Your task to perform on an android device: turn on bluetooth scan Image 0: 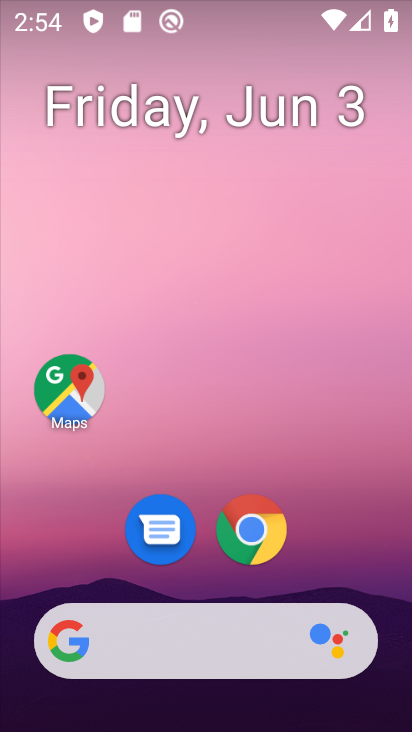
Step 0: drag from (395, 691) to (328, 172)
Your task to perform on an android device: turn on bluetooth scan Image 1: 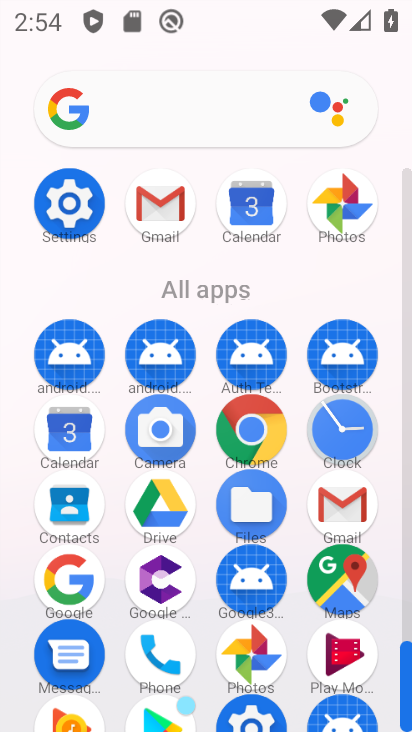
Step 1: click (75, 208)
Your task to perform on an android device: turn on bluetooth scan Image 2: 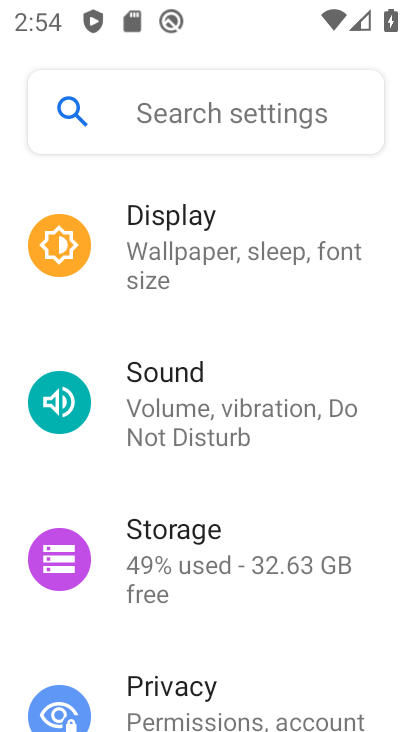
Step 2: drag from (318, 678) to (303, 198)
Your task to perform on an android device: turn on bluetooth scan Image 3: 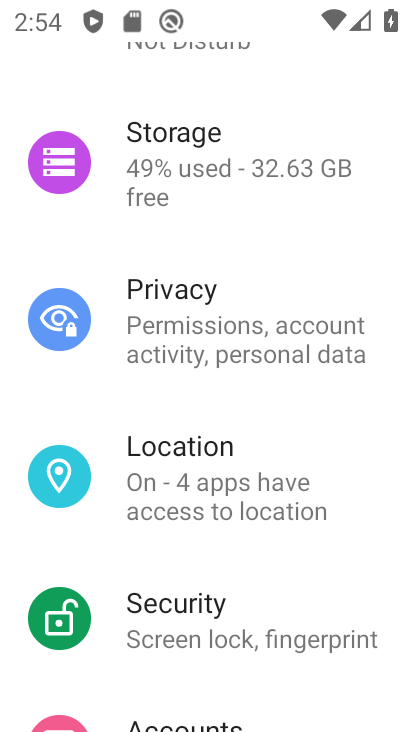
Step 3: click (217, 513)
Your task to perform on an android device: turn on bluetooth scan Image 4: 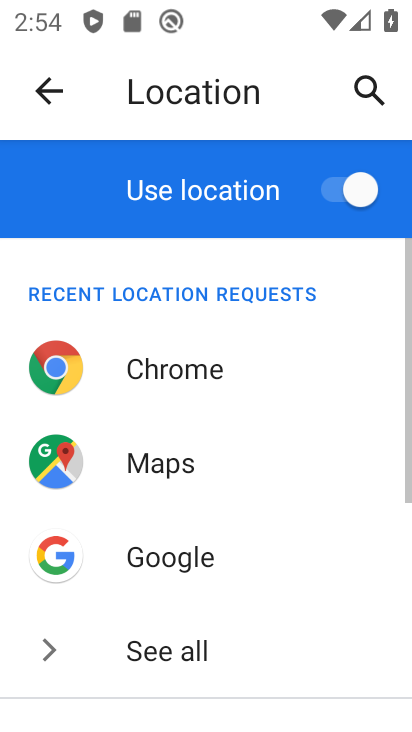
Step 4: drag from (283, 666) to (240, 222)
Your task to perform on an android device: turn on bluetooth scan Image 5: 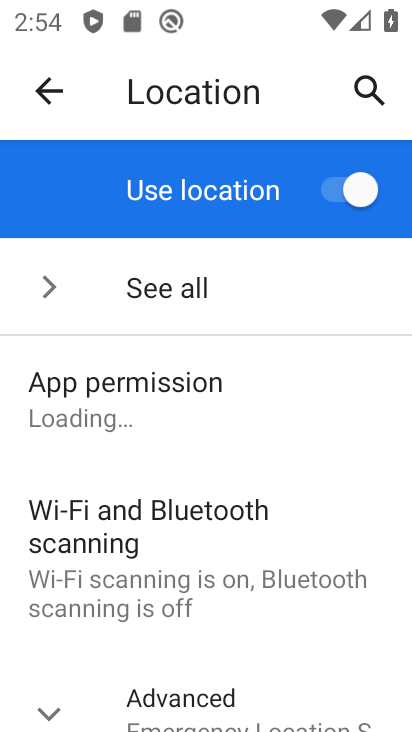
Step 5: click (163, 550)
Your task to perform on an android device: turn on bluetooth scan Image 6: 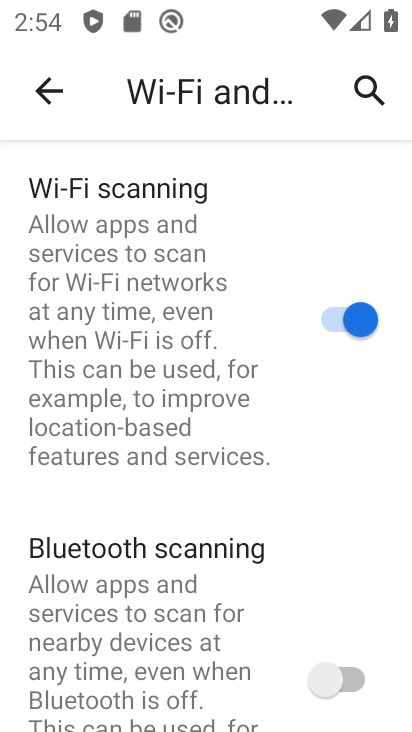
Step 6: click (353, 677)
Your task to perform on an android device: turn on bluetooth scan Image 7: 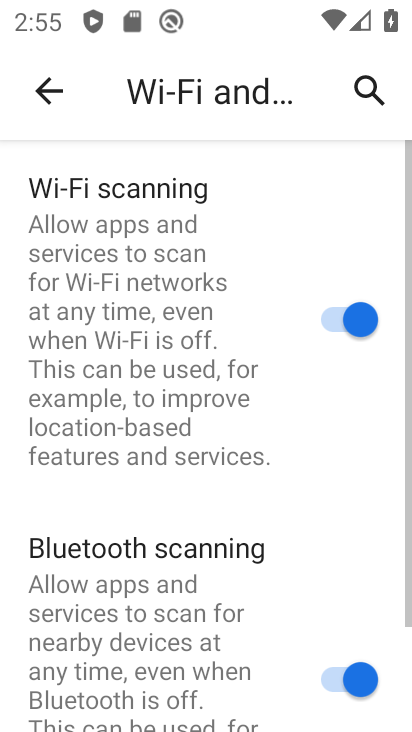
Step 7: task complete